Your task to perform on an android device: change the clock display to analog Image 0: 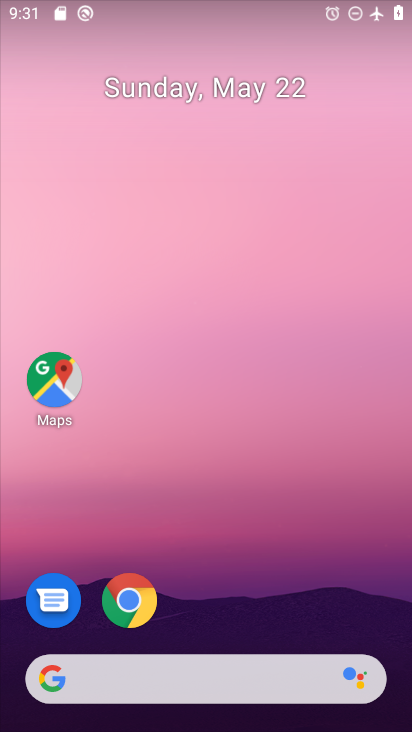
Step 0: drag from (232, 662) to (216, 158)
Your task to perform on an android device: change the clock display to analog Image 1: 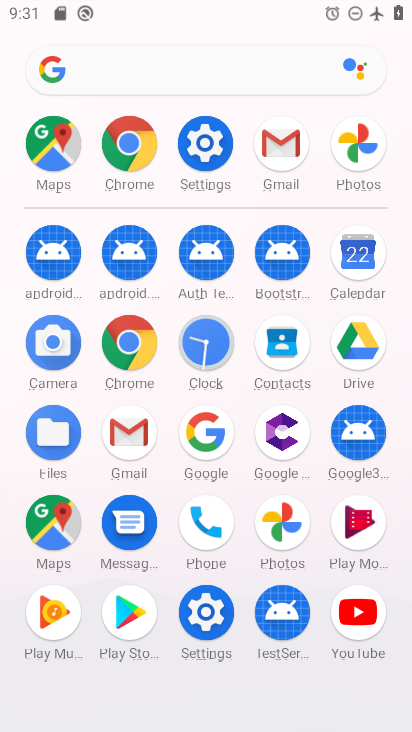
Step 1: click (205, 364)
Your task to perform on an android device: change the clock display to analog Image 2: 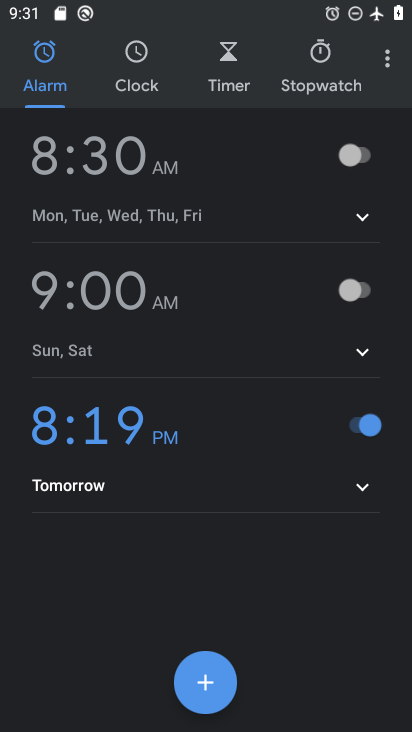
Step 2: click (395, 62)
Your task to perform on an android device: change the clock display to analog Image 3: 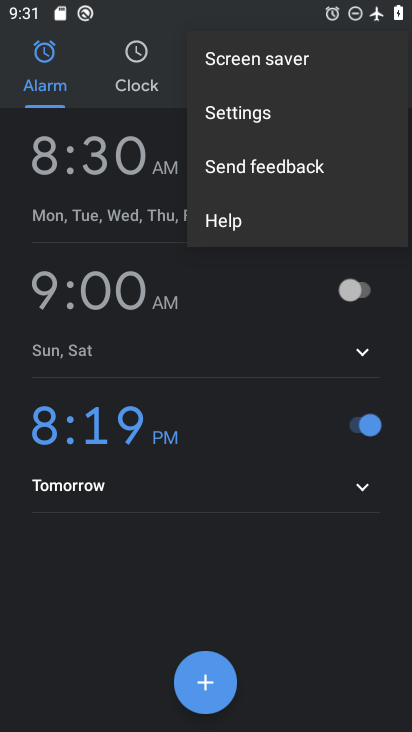
Step 3: click (277, 117)
Your task to perform on an android device: change the clock display to analog Image 4: 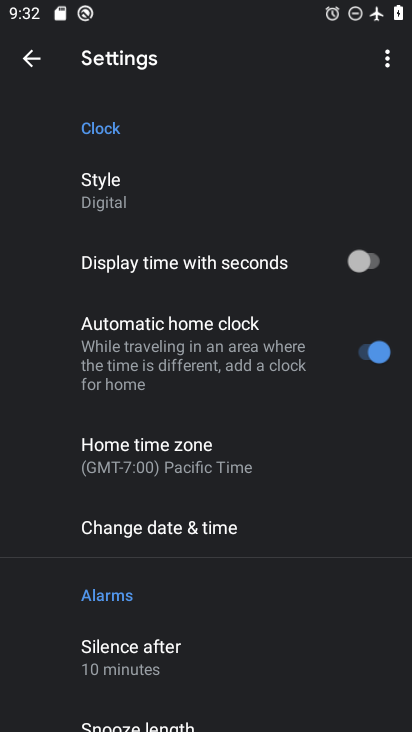
Step 4: click (208, 528)
Your task to perform on an android device: change the clock display to analog Image 5: 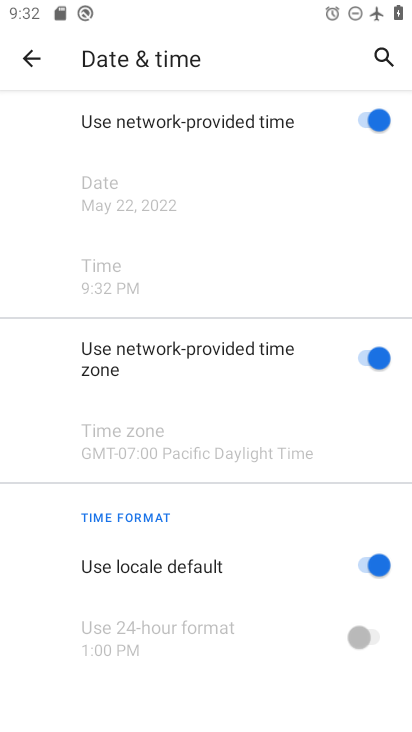
Step 5: task complete